Your task to perform on an android device: open app "Adobe Acrobat Reader: Edit PDF" (install if not already installed) Image 0: 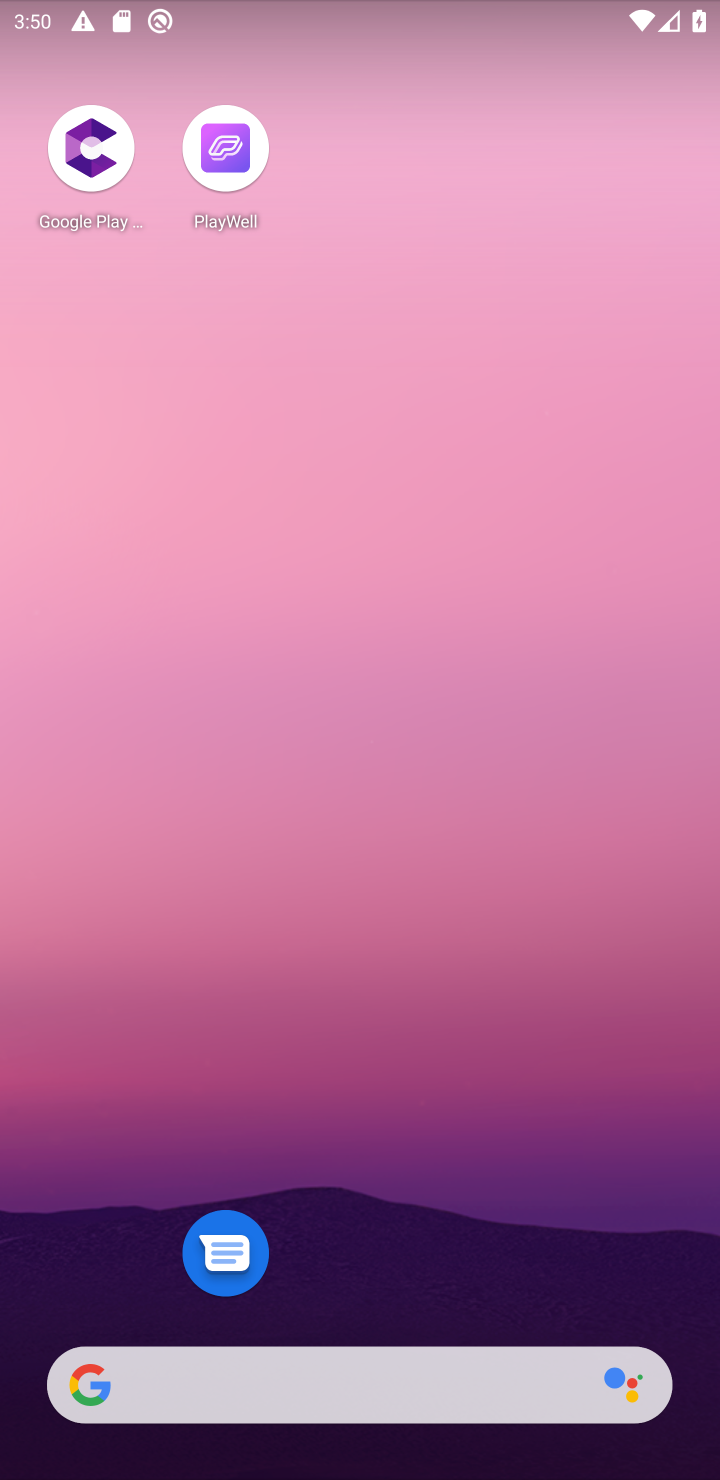
Step 0: drag from (354, 1308) to (374, 275)
Your task to perform on an android device: open app "Adobe Acrobat Reader: Edit PDF" (install if not already installed) Image 1: 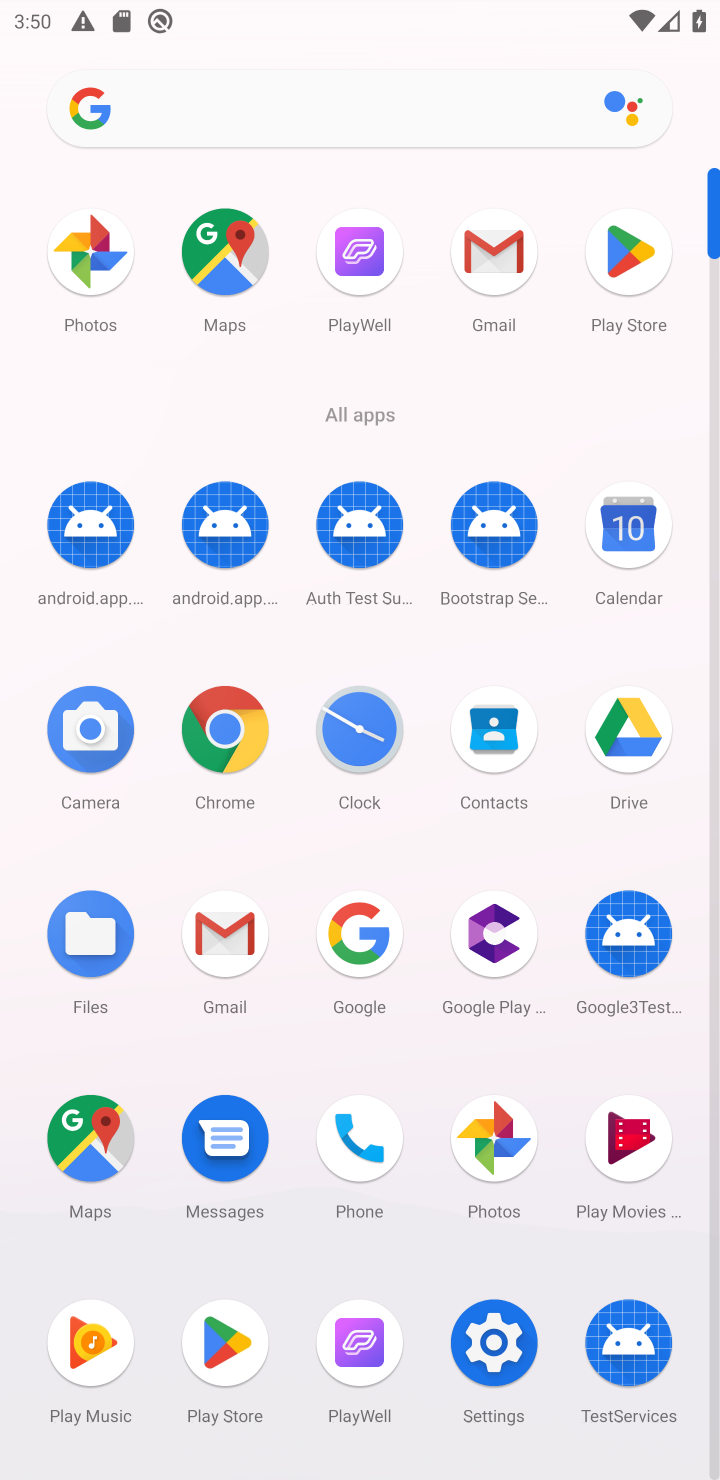
Step 1: click (606, 243)
Your task to perform on an android device: open app "Adobe Acrobat Reader: Edit PDF" (install if not already installed) Image 2: 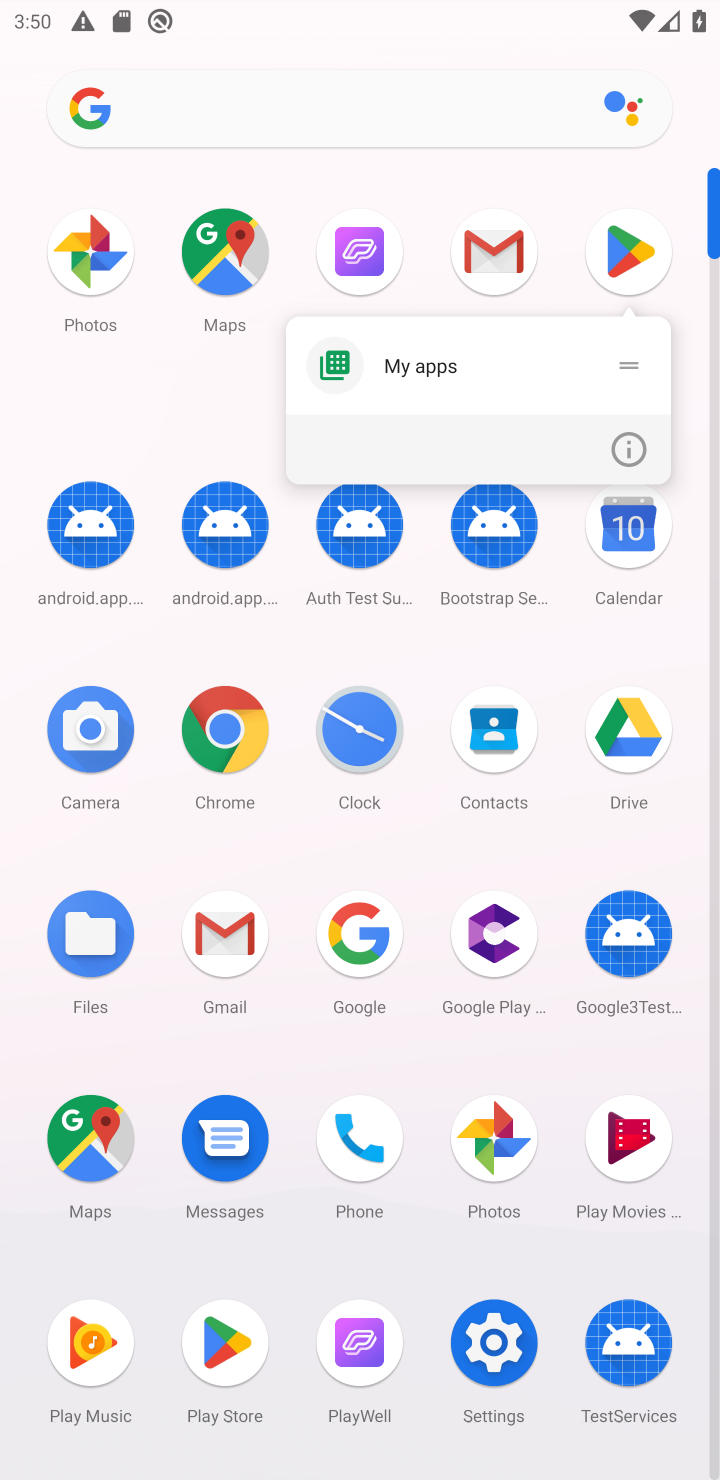
Step 2: click (617, 260)
Your task to perform on an android device: open app "Adobe Acrobat Reader: Edit PDF" (install if not already installed) Image 3: 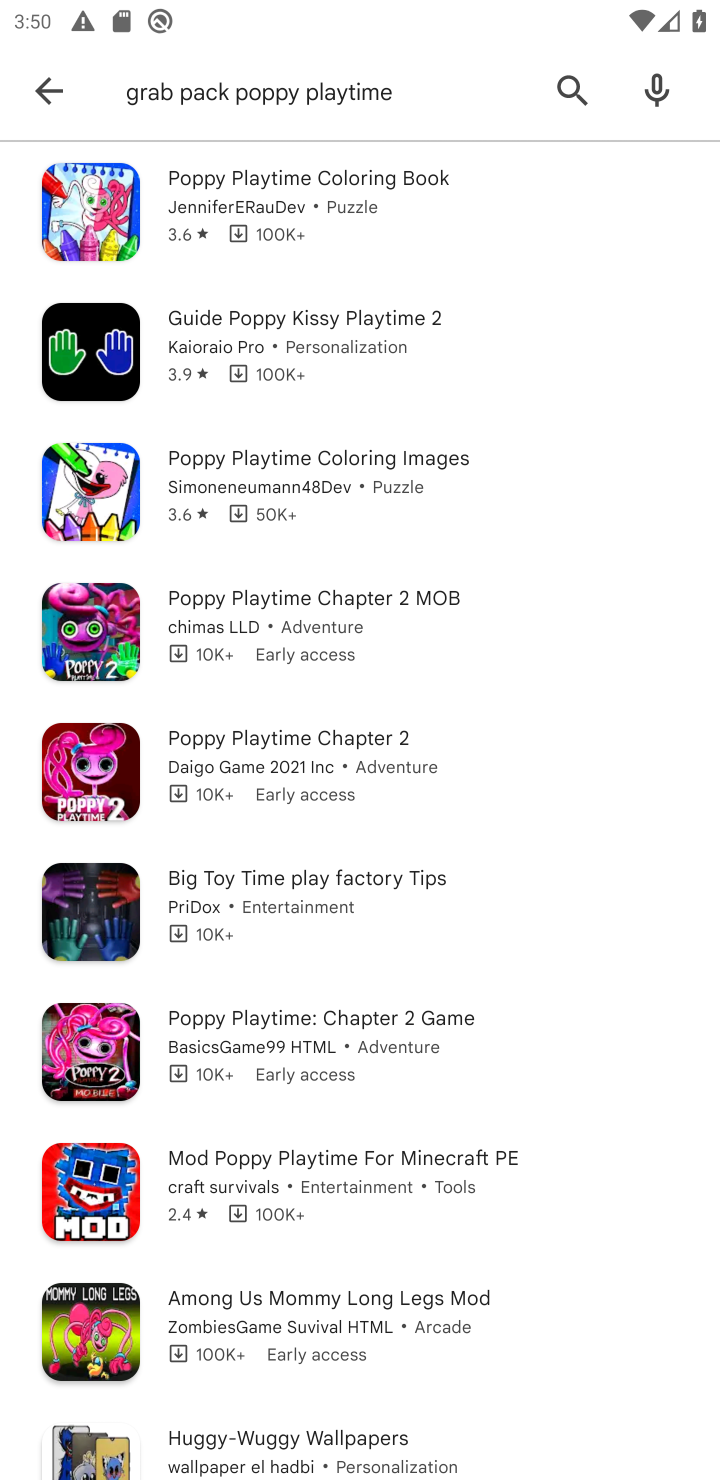
Step 3: click (69, 88)
Your task to perform on an android device: open app "Adobe Acrobat Reader: Edit PDF" (install if not already installed) Image 4: 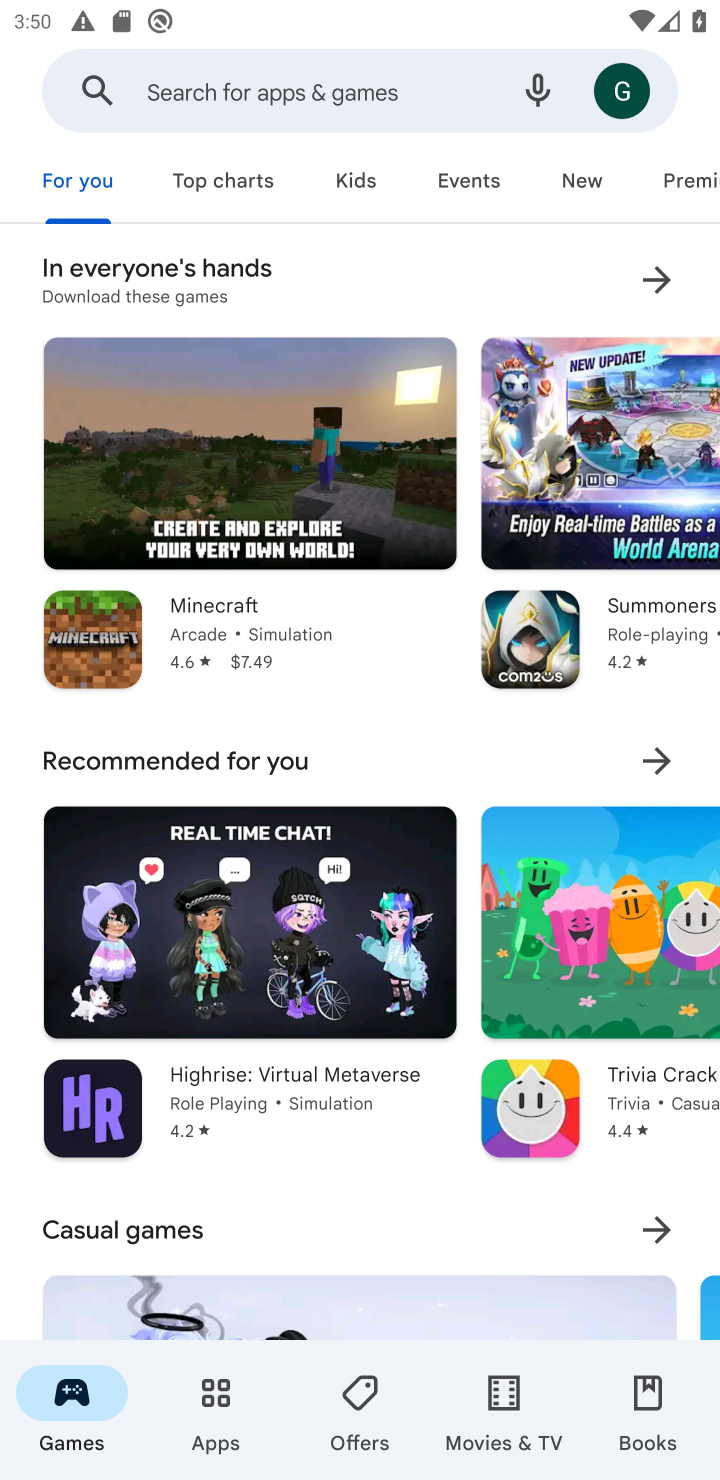
Step 4: click (307, 92)
Your task to perform on an android device: open app "Adobe Acrobat Reader: Edit PDF" (install if not already installed) Image 5: 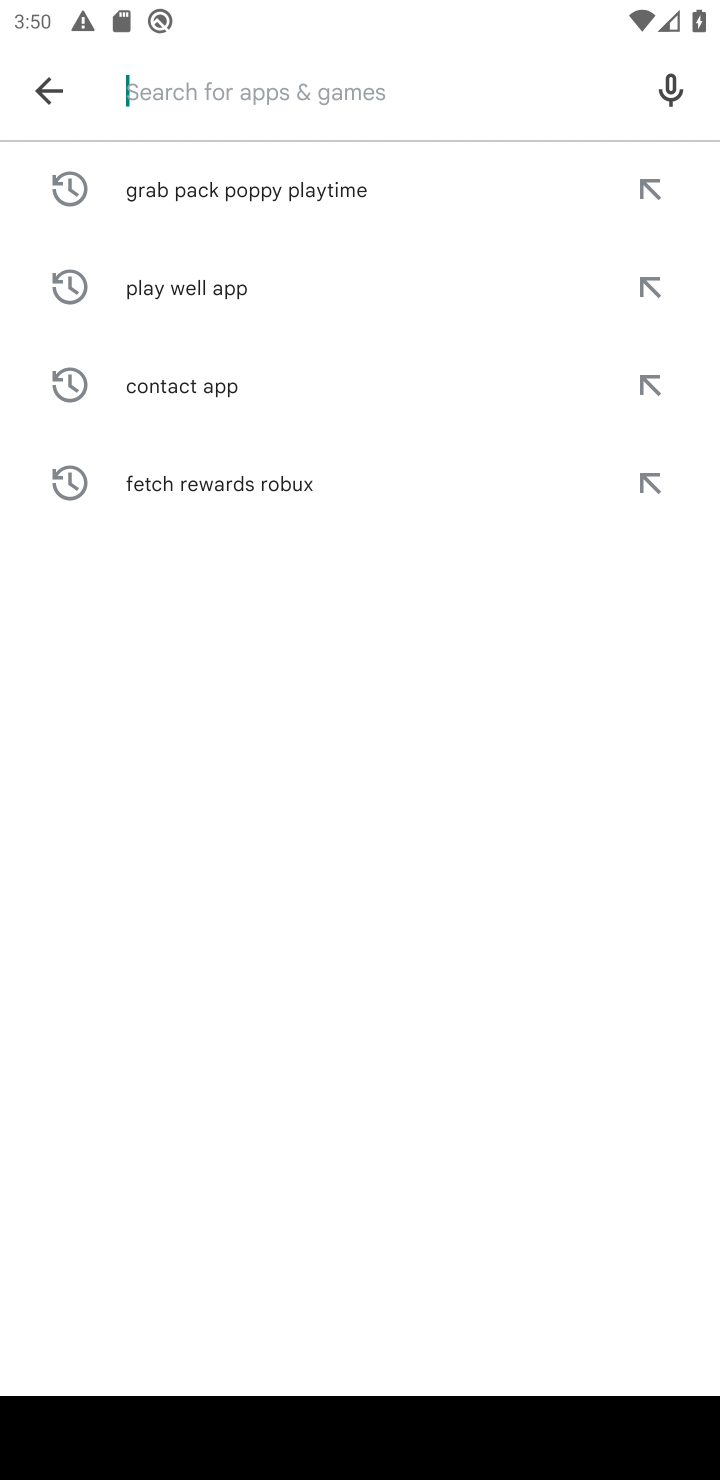
Step 5: type "Adobe Acrobat Reader "
Your task to perform on an android device: open app "Adobe Acrobat Reader: Edit PDF" (install if not already installed) Image 6: 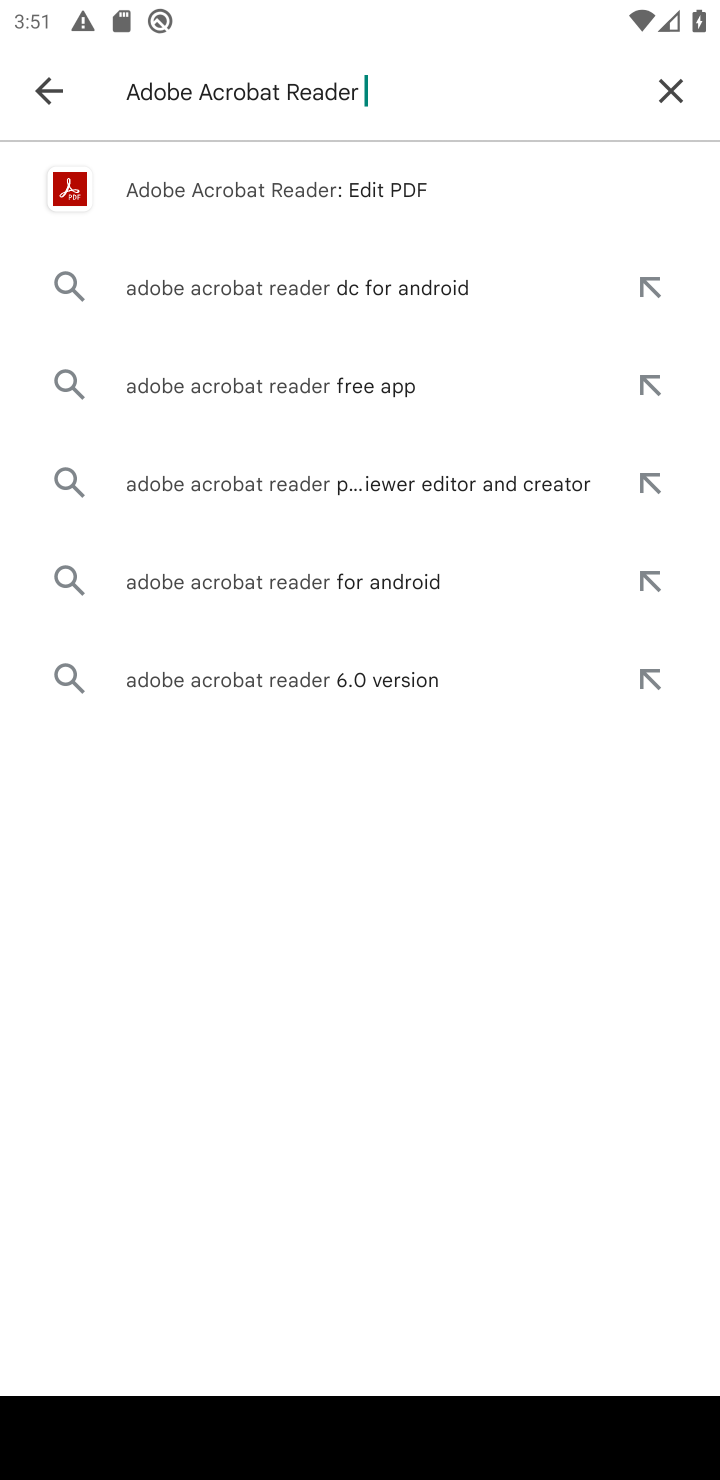
Step 6: click (375, 176)
Your task to perform on an android device: open app "Adobe Acrobat Reader: Edit PDF" (install if not already installed) Image 7: 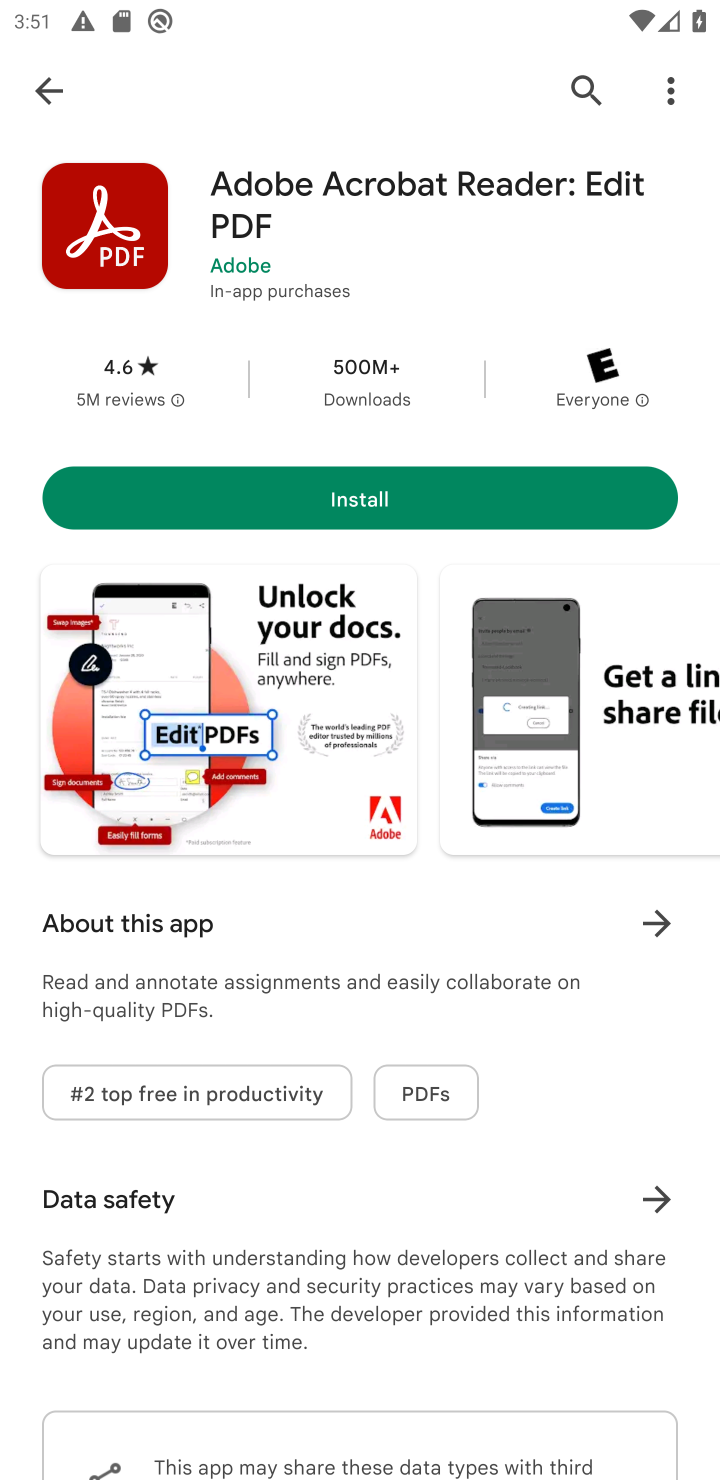
Step 7: click (448, 478)
Your task to perform on an android device: open app "Adobe Acrobat Reader: Edit PDF" (install if not already installed) Image 8: 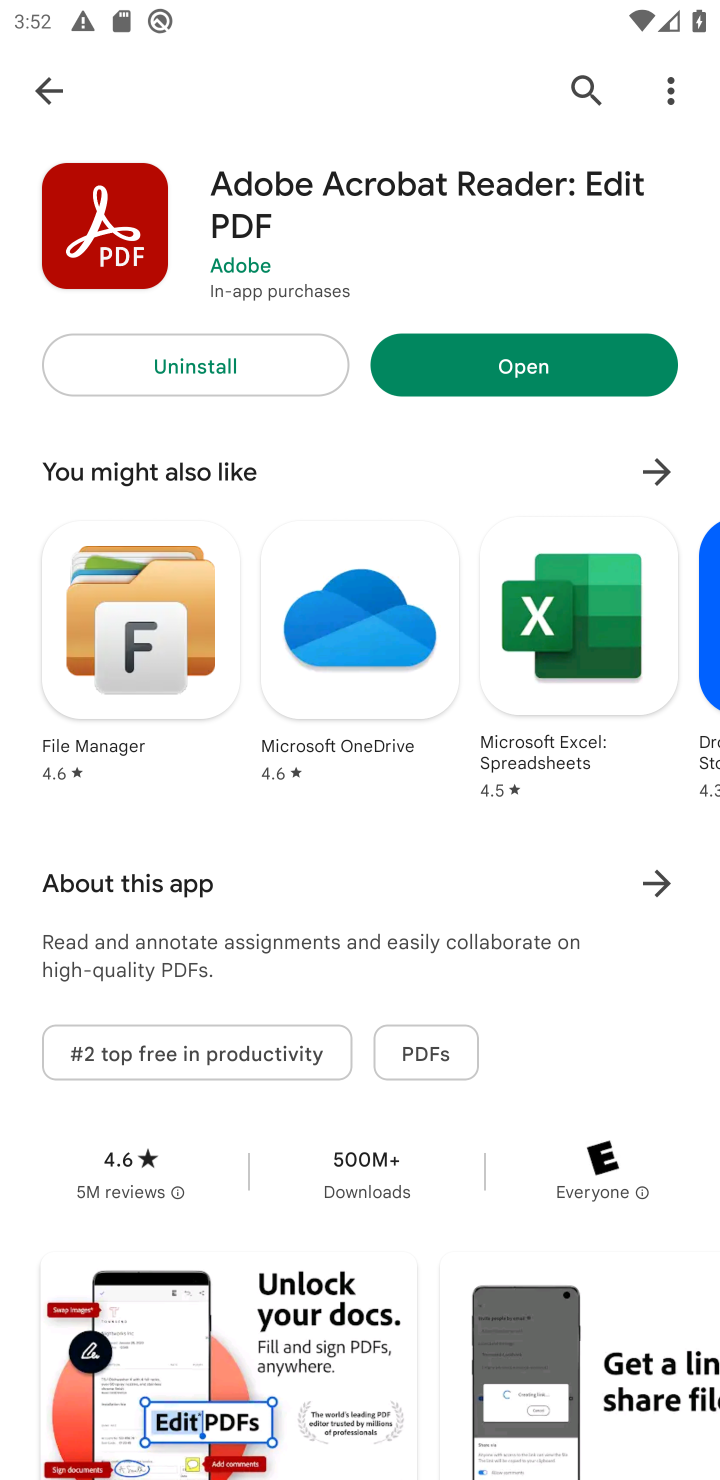
Step 8: task complete